Your task to perform on an android device: open app "Chime – Mobile Banking" (install if not already installed) Image 0: 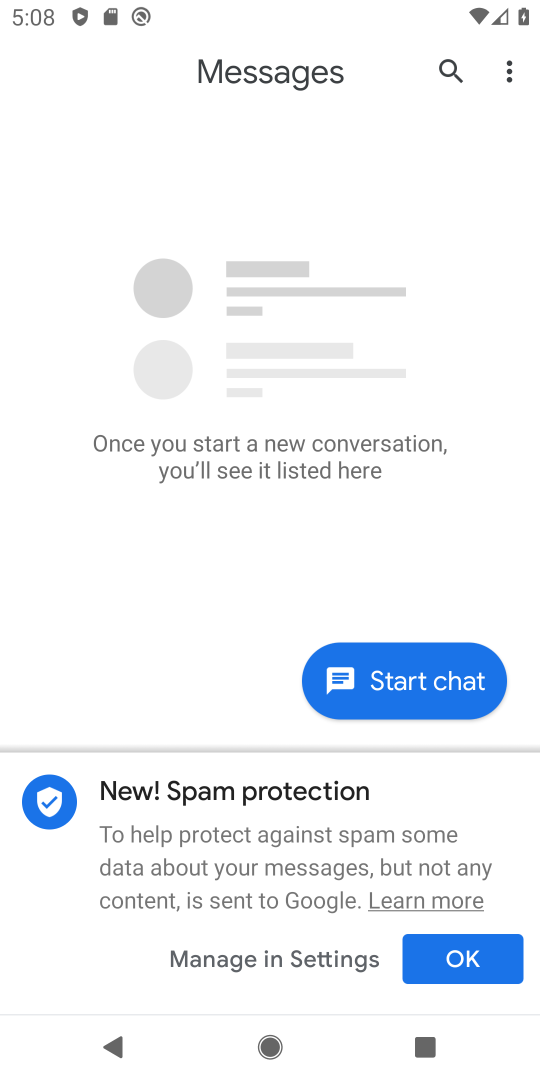
Step 0: press home button
Your task to perform on an android device: open app "Chime – Mobile Banking" (install if not already installed) Image 1: 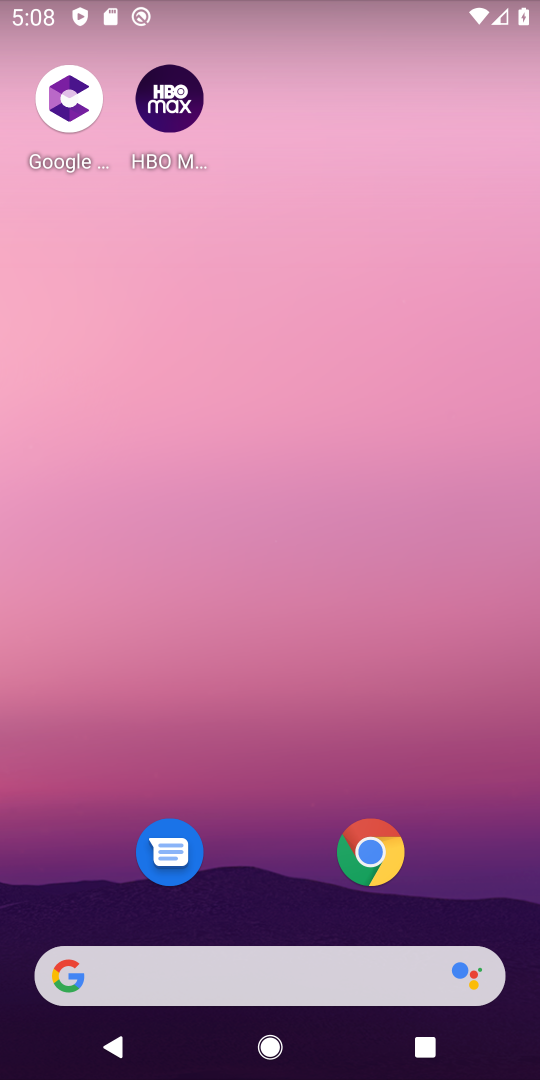
Step 1: drag from (151, 976) to (305, 67)
Your task to perform on an android device: open app "Chime – Mobile Banking" (install if not already installed) Image 2: 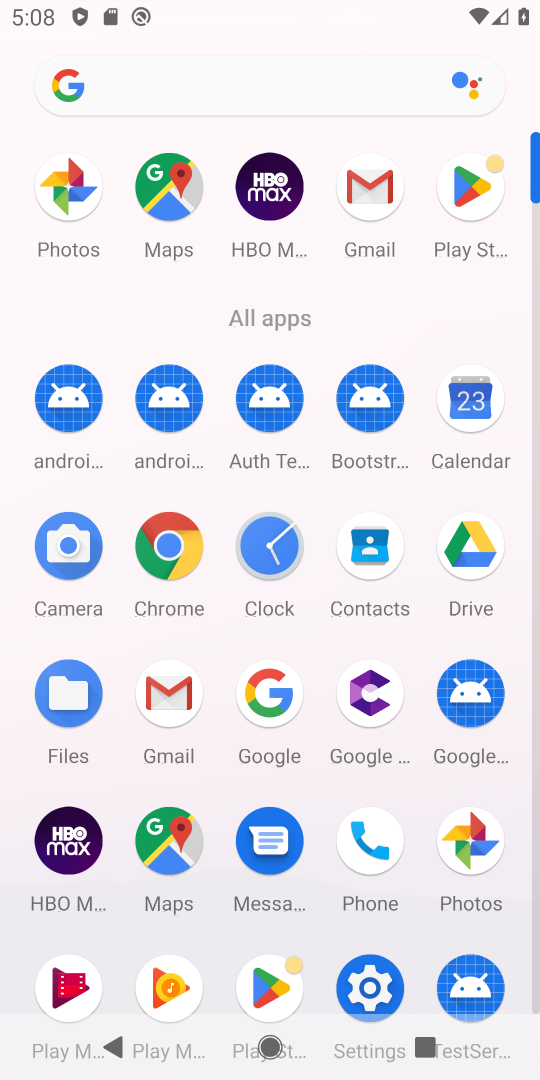
Step 2: click (471, 200)
Your task to perform on an android device: open app "Chime – Mobile Banking" (install if not already installed) Image 3: 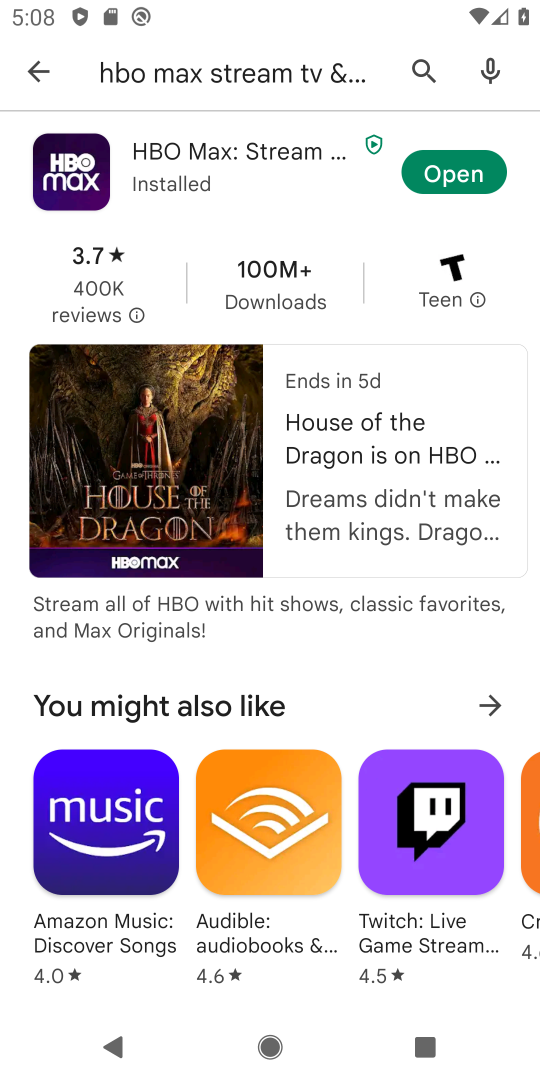
Step 3: press back button
Your task to perform on an android device: open app "Chime – Mobile Banking" (install if not already installed) Image 4: 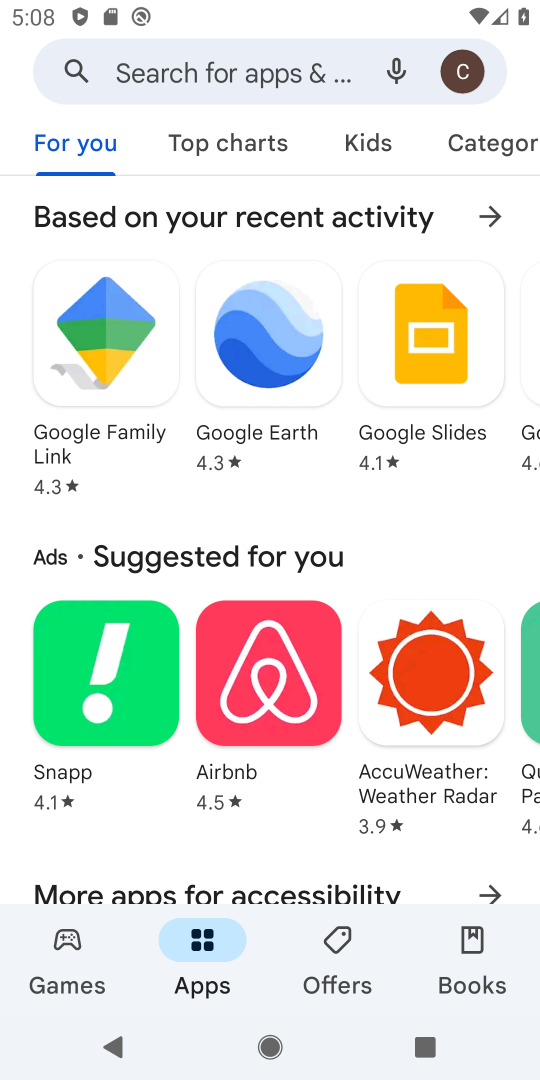
Step 4: click (247, 78)
Your task to perform on an android device: open app "Chime – Mobile Banking" (install if not already installed) Image 5: 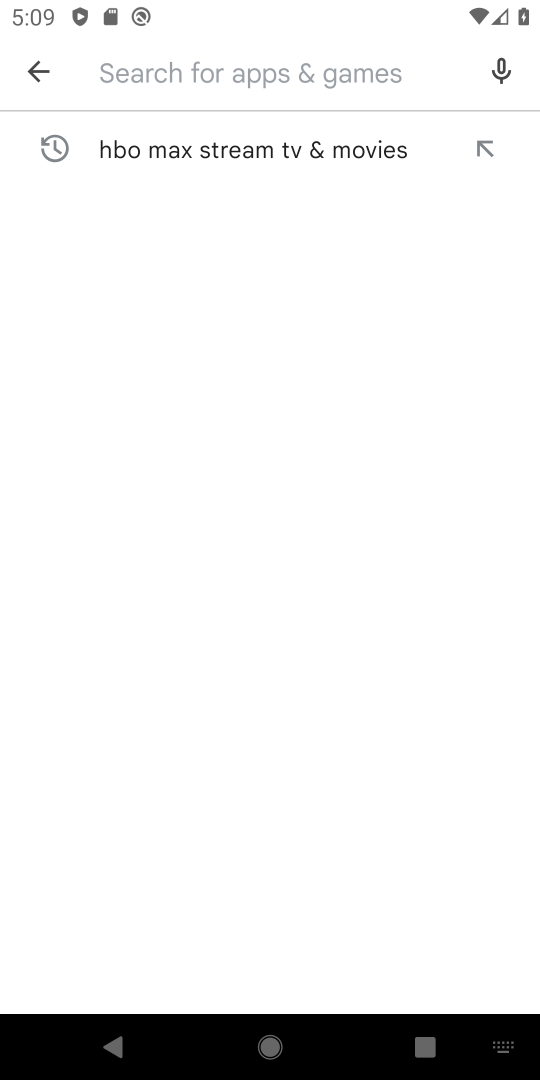
Step 5: type "Chime - Mobile Banking"
Your task to perform on an android device: open app "Chime – Mobile Banking" (install if not already installed) Image 6: 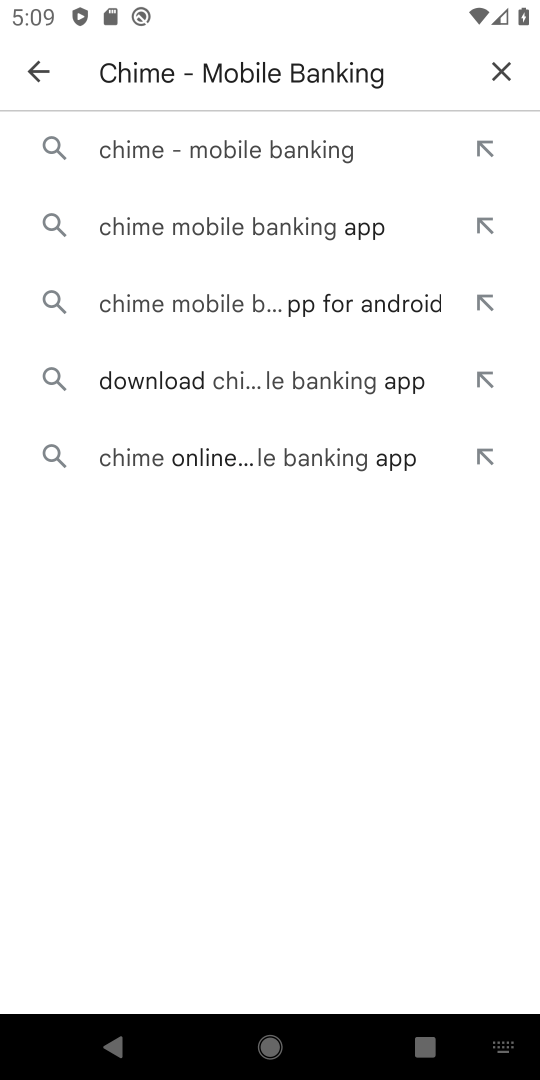
Step 6: click (295, 154)
Your task to perform on an android device: open app "Chime – Mobile Banking" (install if not already installed) Image 7: 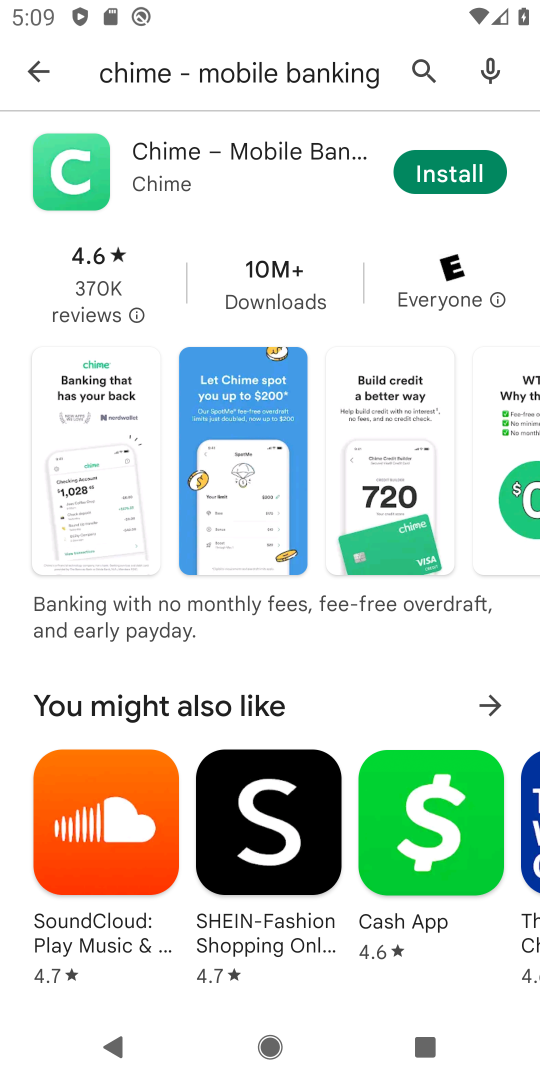
Step 7: click (431, 178)
Your task to perform on an android device: open app "Chime – Mobile Banking" (install if not already installed) Image 8: 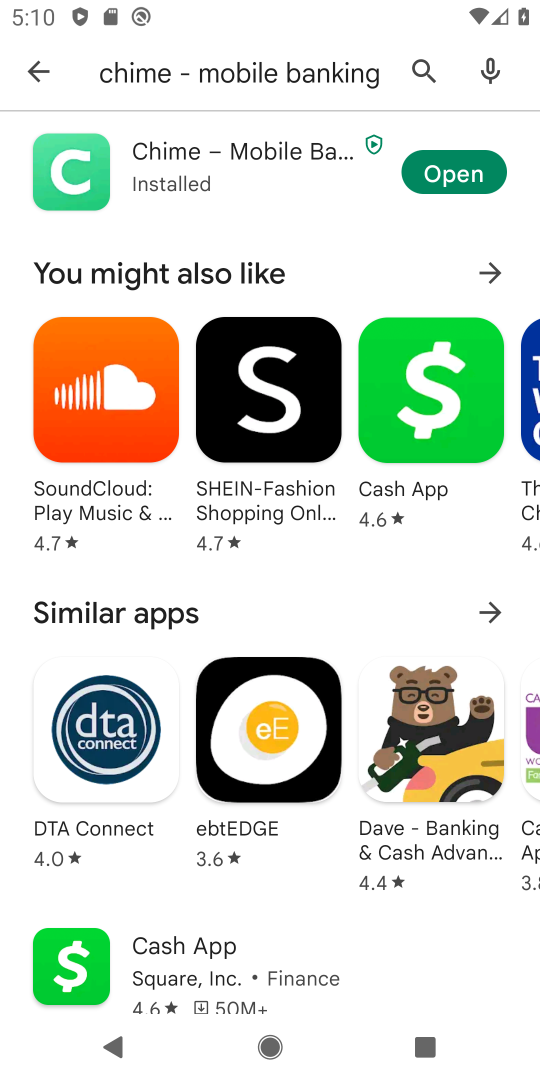
Step 8: click (450, 153)
Your task to perform on an android device: open app "Chime – Mobile Banking" (install if not already installed) Image 9: 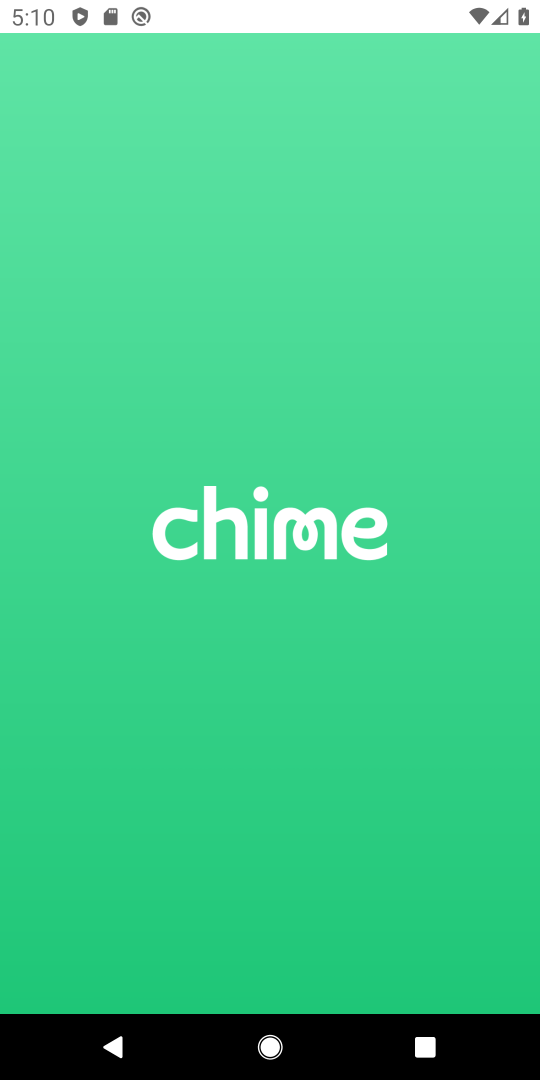
Step 9: task complete